Your task to perform on an android device: create a new album in the google photos Image 0: 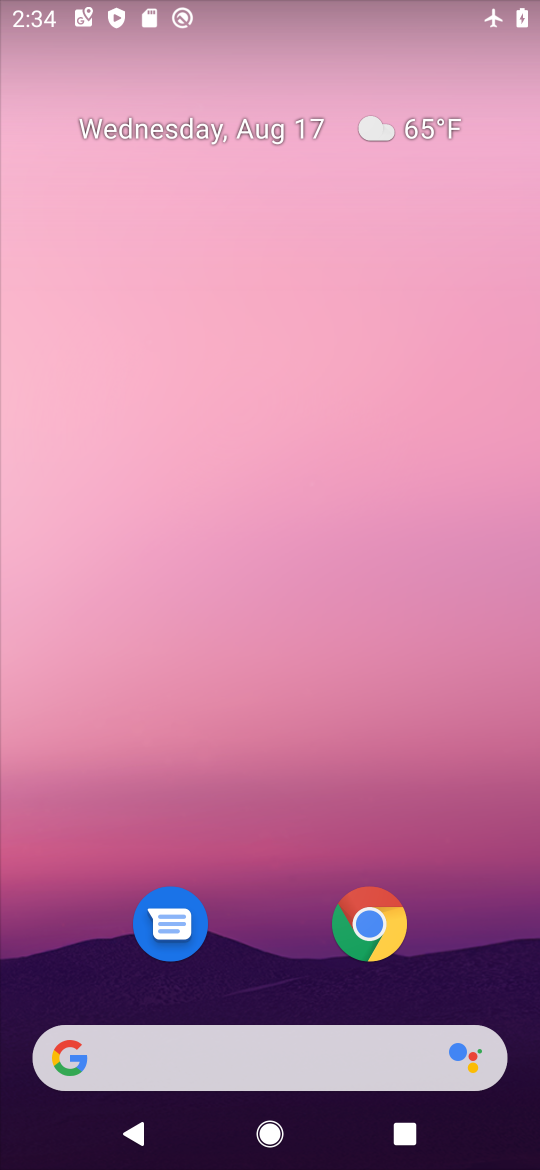
Step 0: drag from (255, 1032) to (199, 250)
Your task to perform on an android device: create a new album in the google photos Image 1: 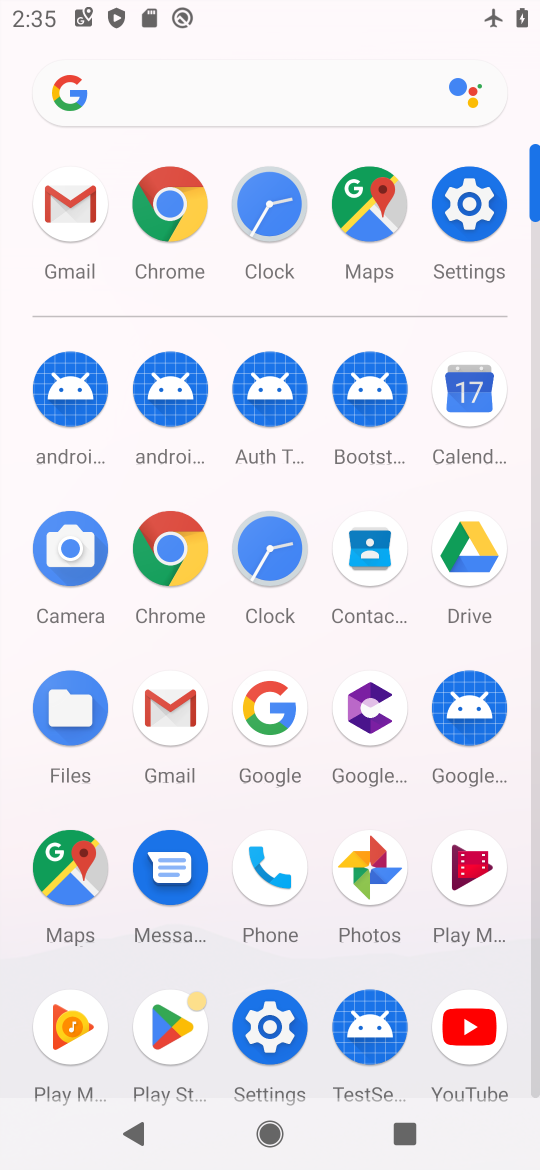
Step 1: click (371, 868)
Your task to perform on an android device: create a new album in the google photos Image 2: 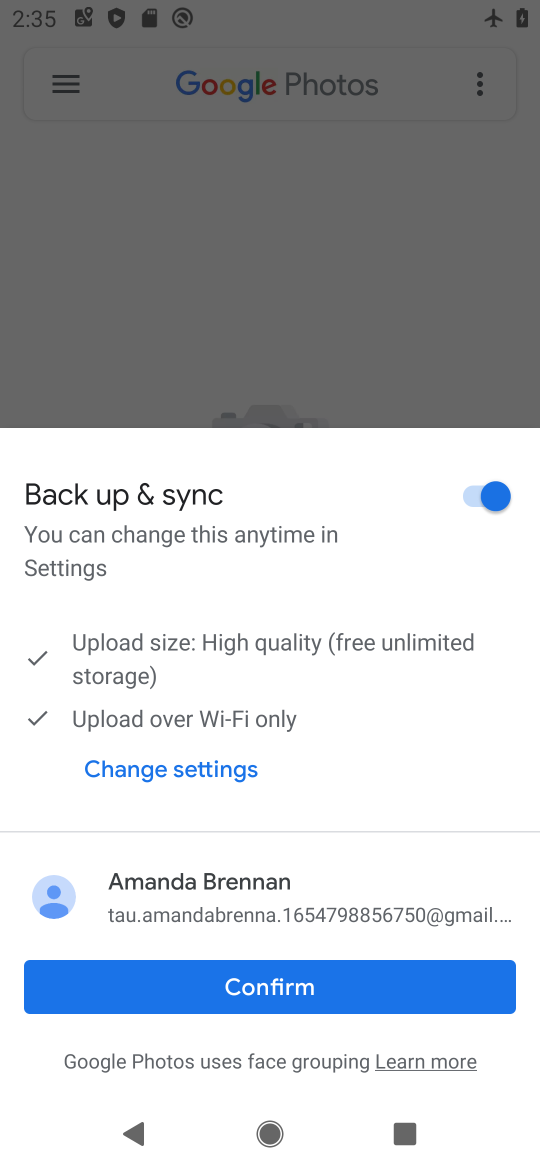
Step 2: click (308, 996)
Your task to perform on an android device: create a new album in the google photos Image 3: 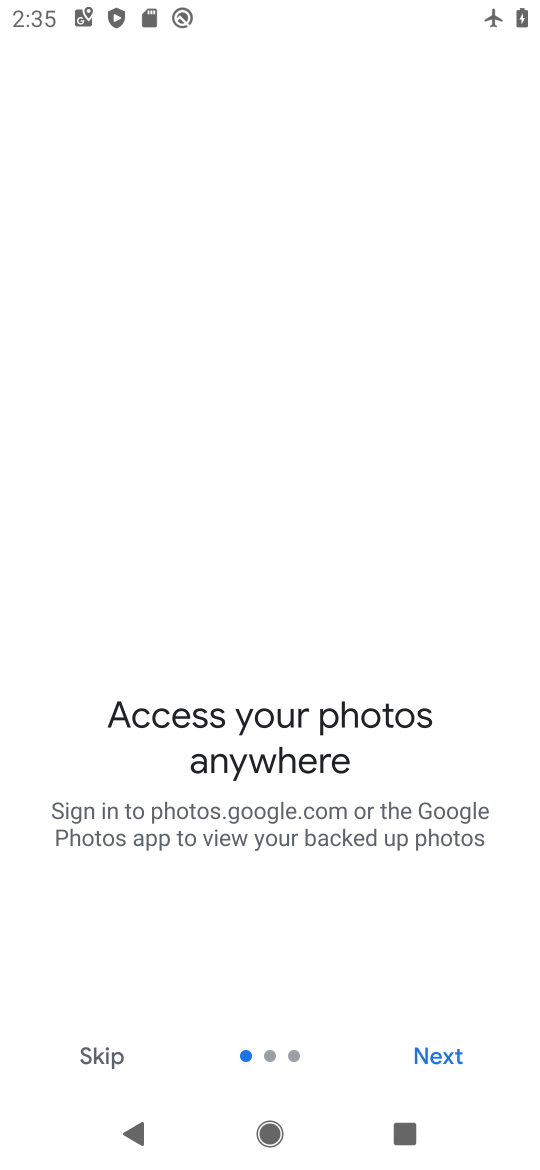
Step 3: click (445, 1059)
Your task to perform on an android device: create a new album in the google photos Image 4: 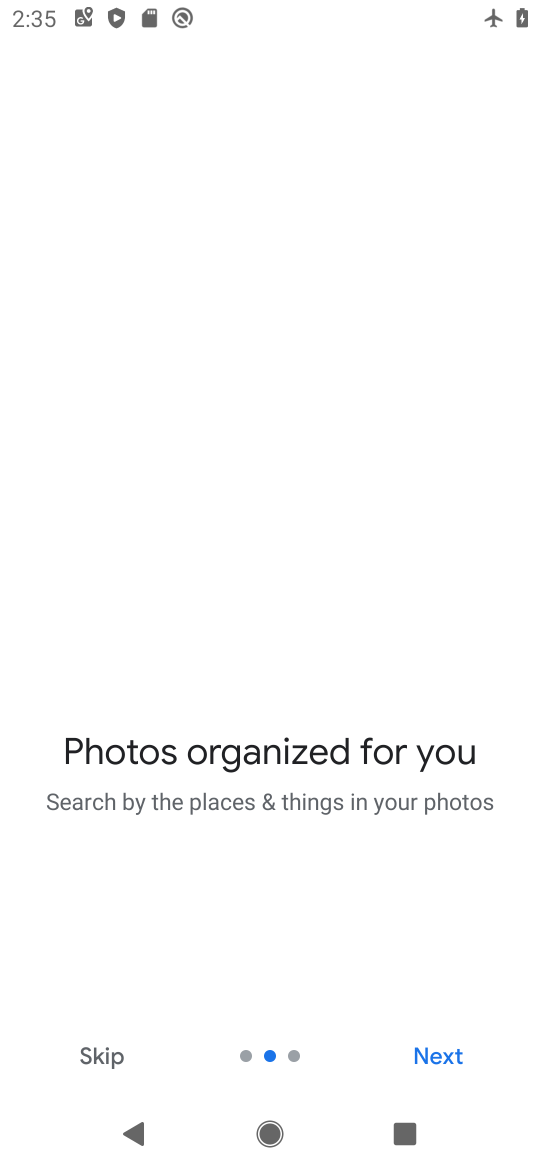
Step 4: click (445, 1059)
Your task to perform on an android device: create a new album in the google photos Image 5: 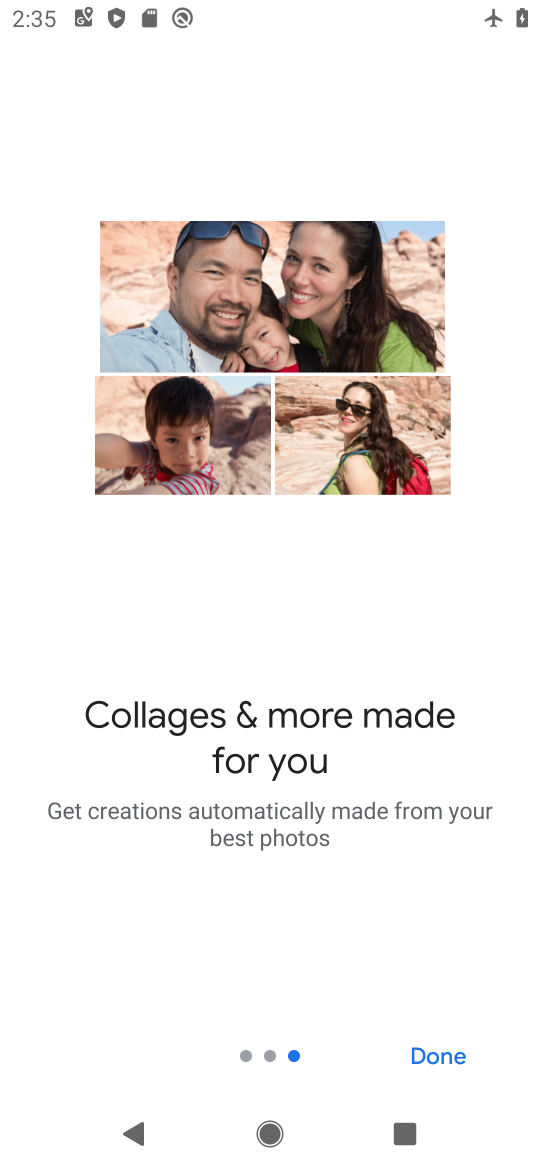
Step 5: click (445, 1059)
Your task to perform on an android device: create a new album in the google photos Image 6: 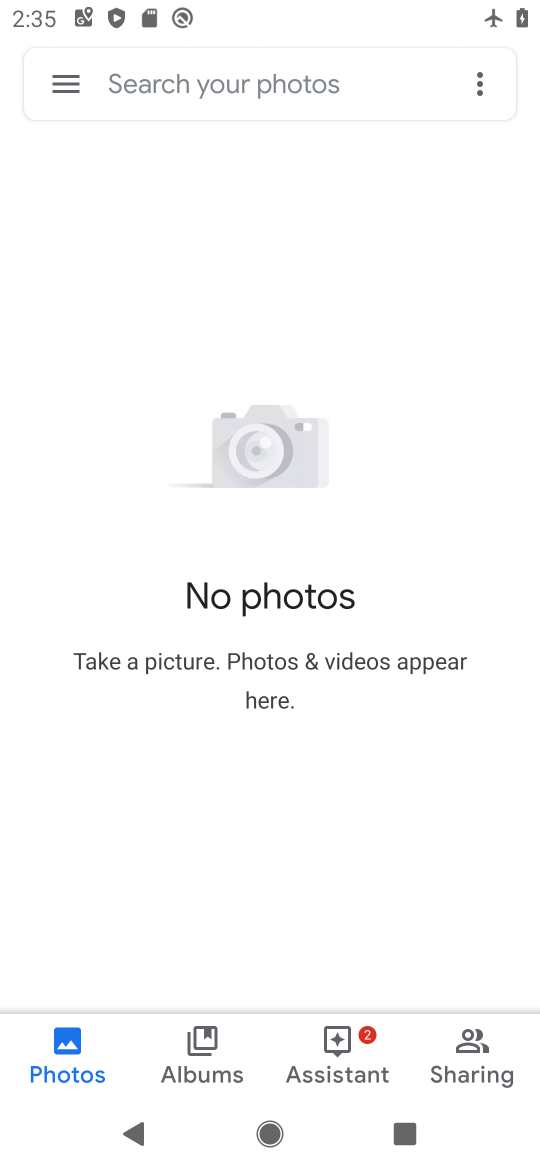
Step 6: click (206, 1041)
Your task to perform on an android device: create a new album in the google photos Image 7: 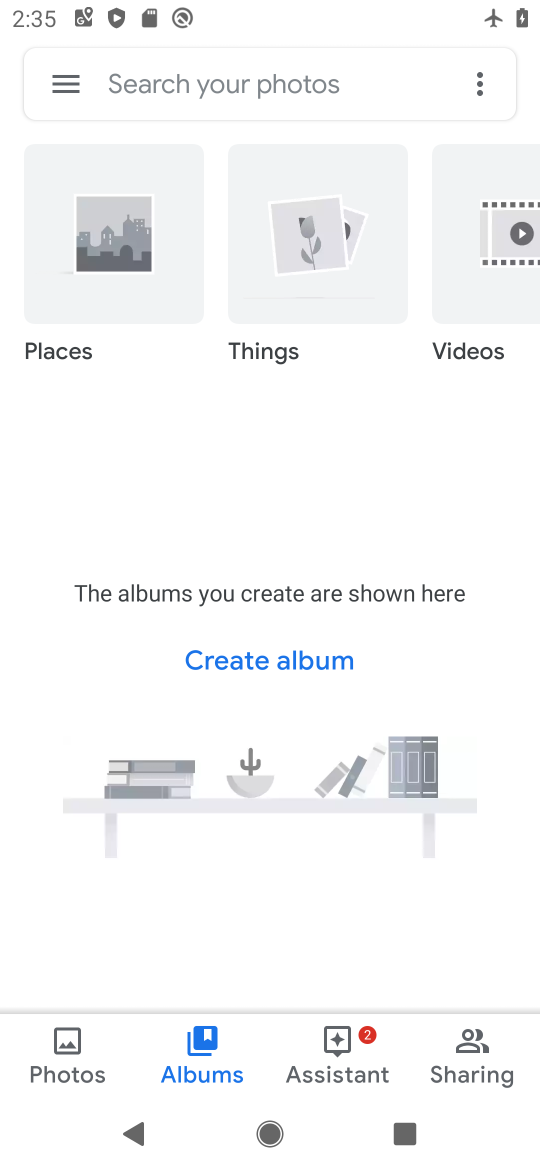
Step 7: task complete